Your task to perform on an android device: make emails show in primary in the gmail app Image 0: 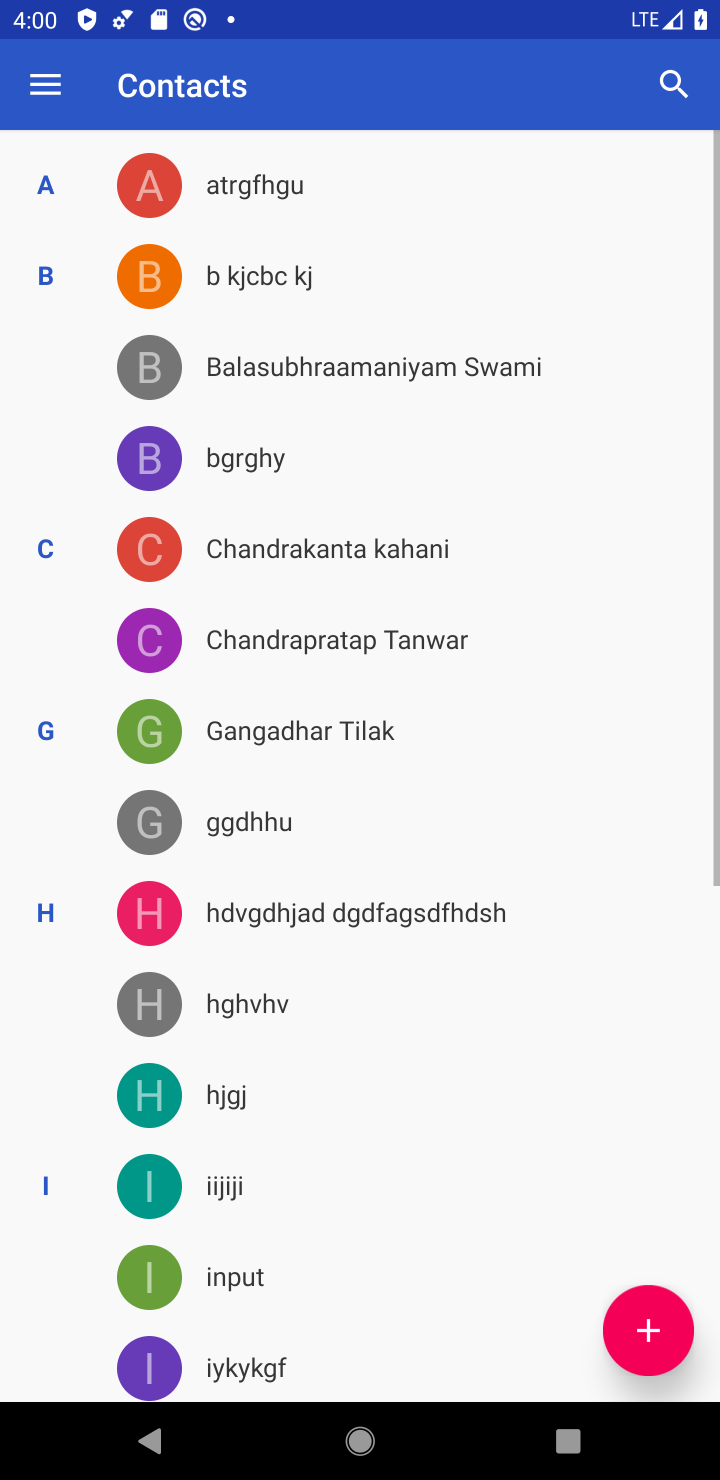
Step 0: press back button
Your task to perform on an android device: make emails show in primary in the gmail app Image 1: 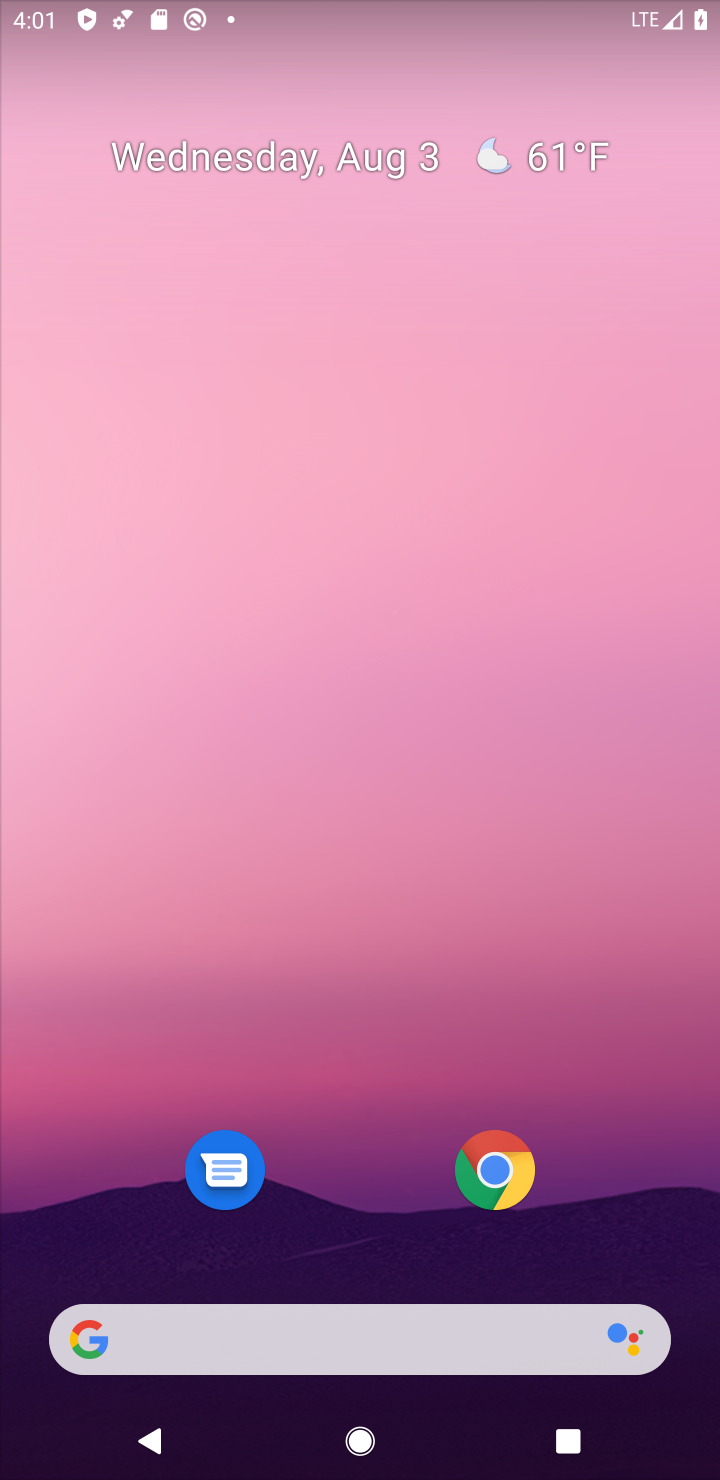
Step 1: drag from (306, 937) to (169, 20)
Your task to perform on an android device: make emails show in primary in the gmail app Image 2: 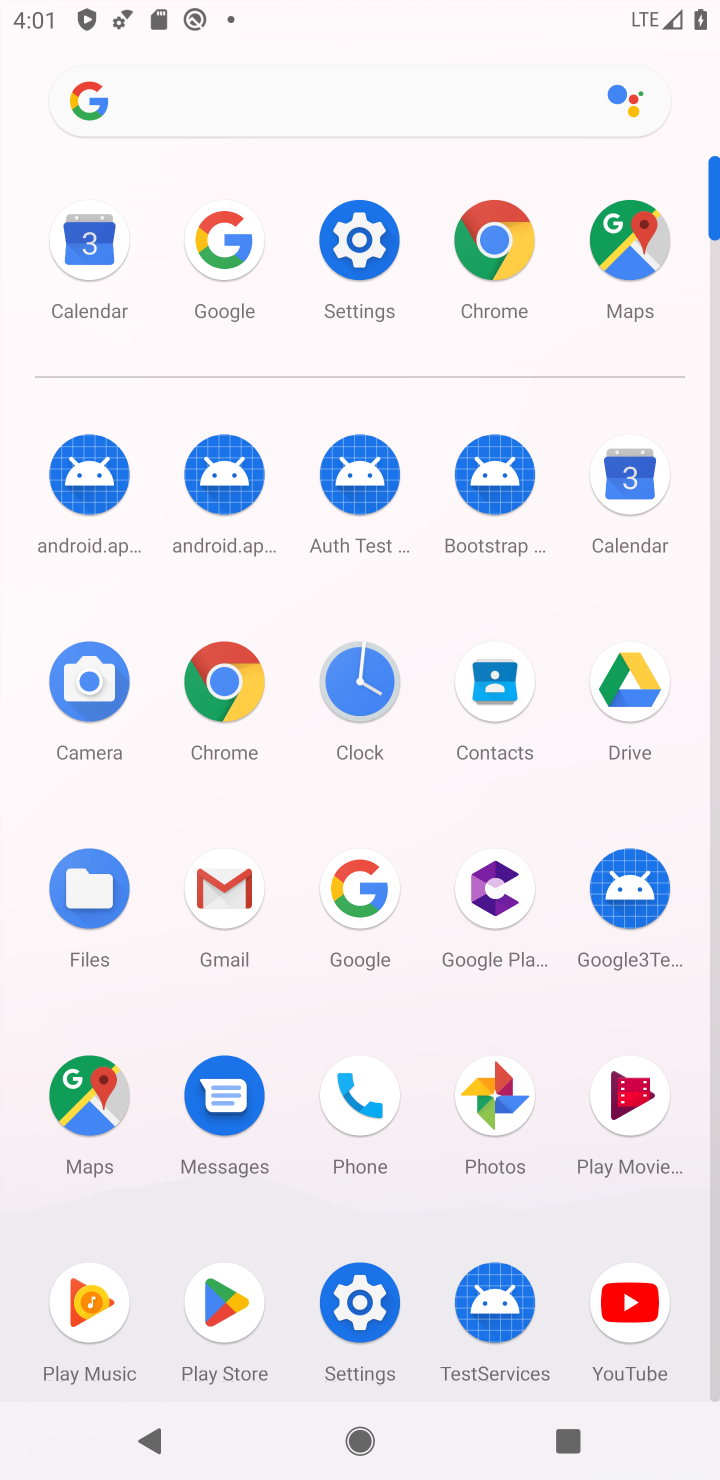
Step 2: click (619, 265)
Your task to perform on an android device: make emails show in primary in the gmail app Image 3: 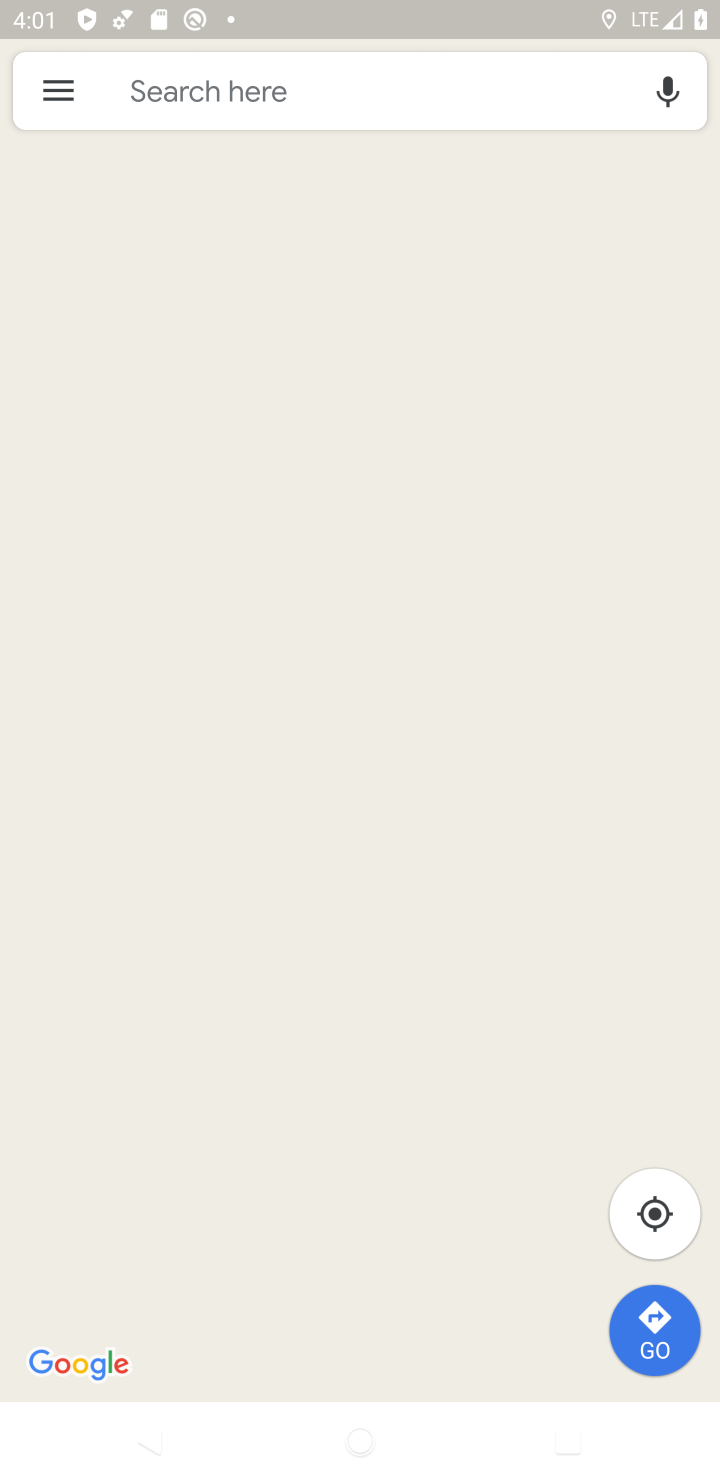
Step 3: press back button
Your task to perform on an android device: make emails show in primary in the gmail app Image 4: 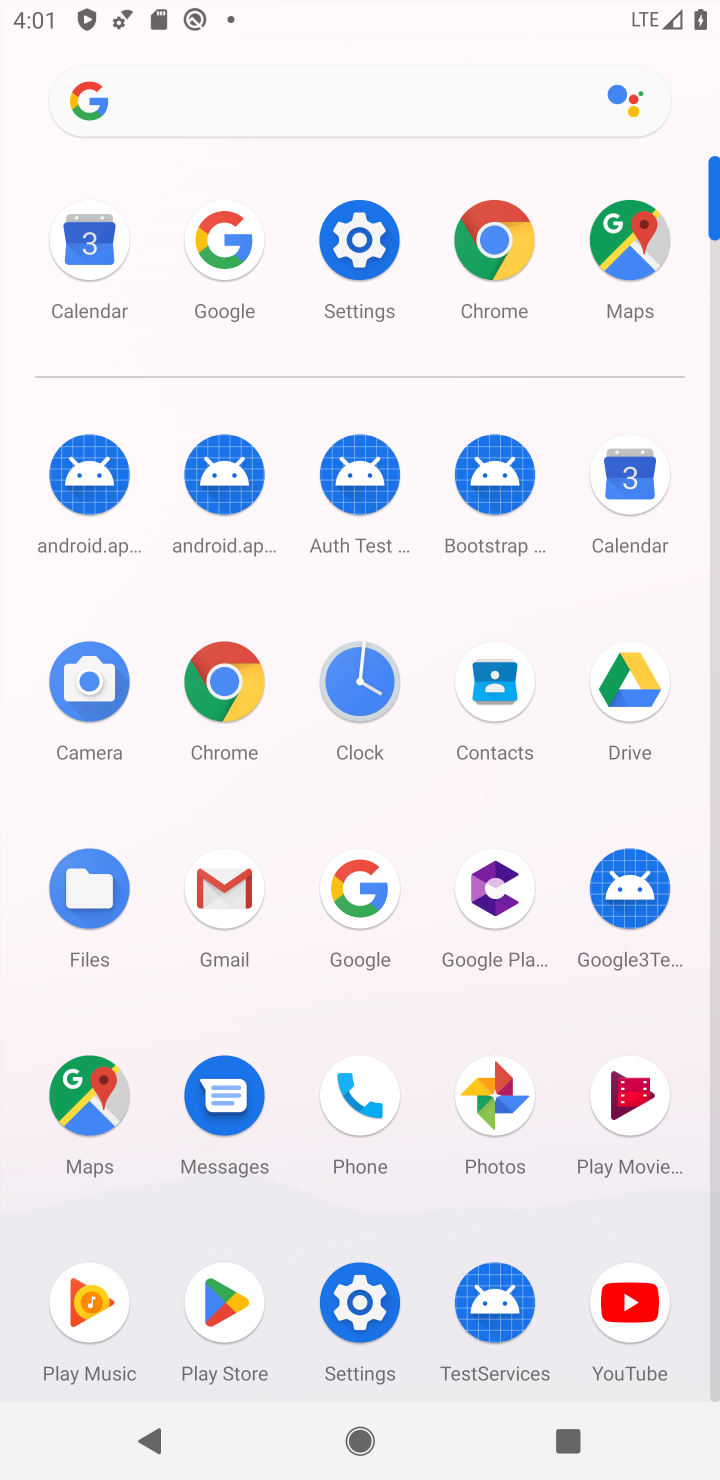
Step 4: click (220, 883)
Your task to perform on an android device: make emails show in primary in the gmail app Image 5: 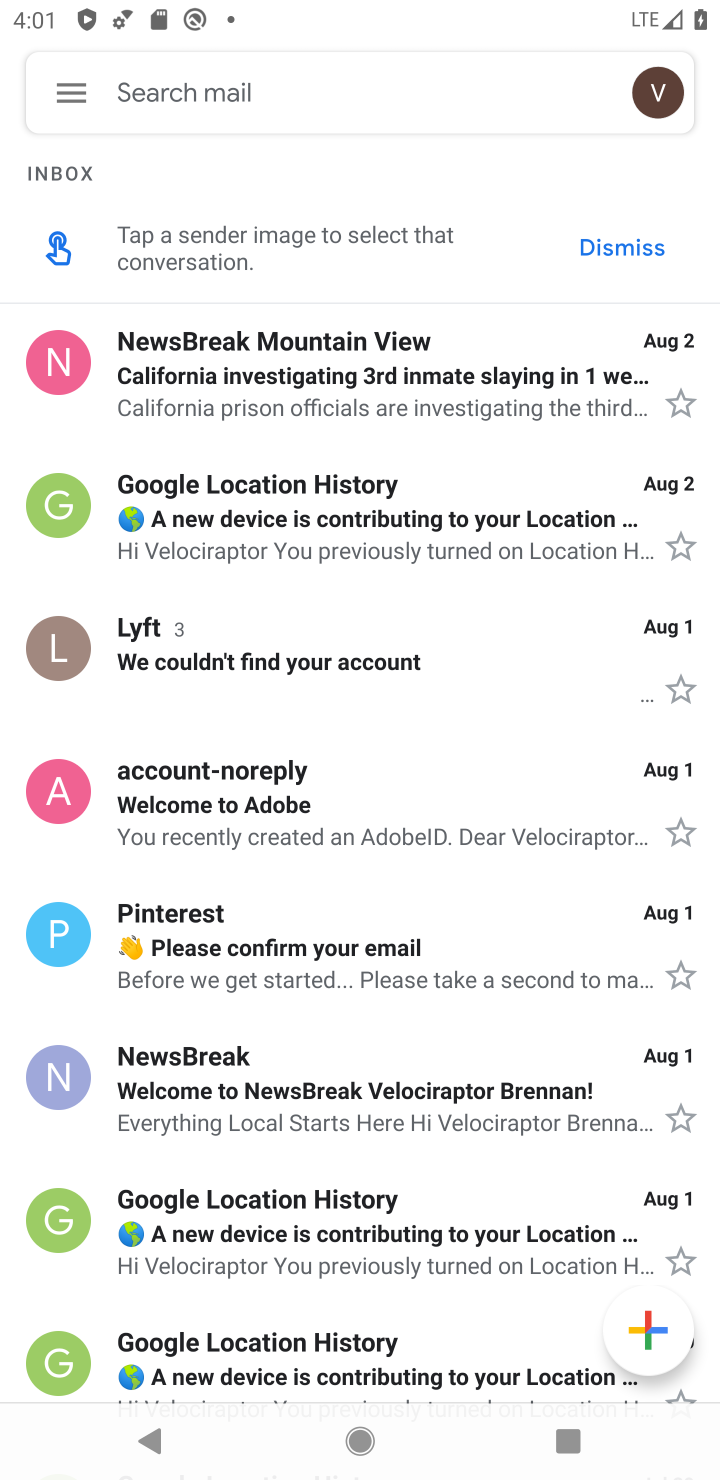
Step 5: click (79, 105)
Your task to perform on an android device: make emails show in primary in the gmail app Image 6: 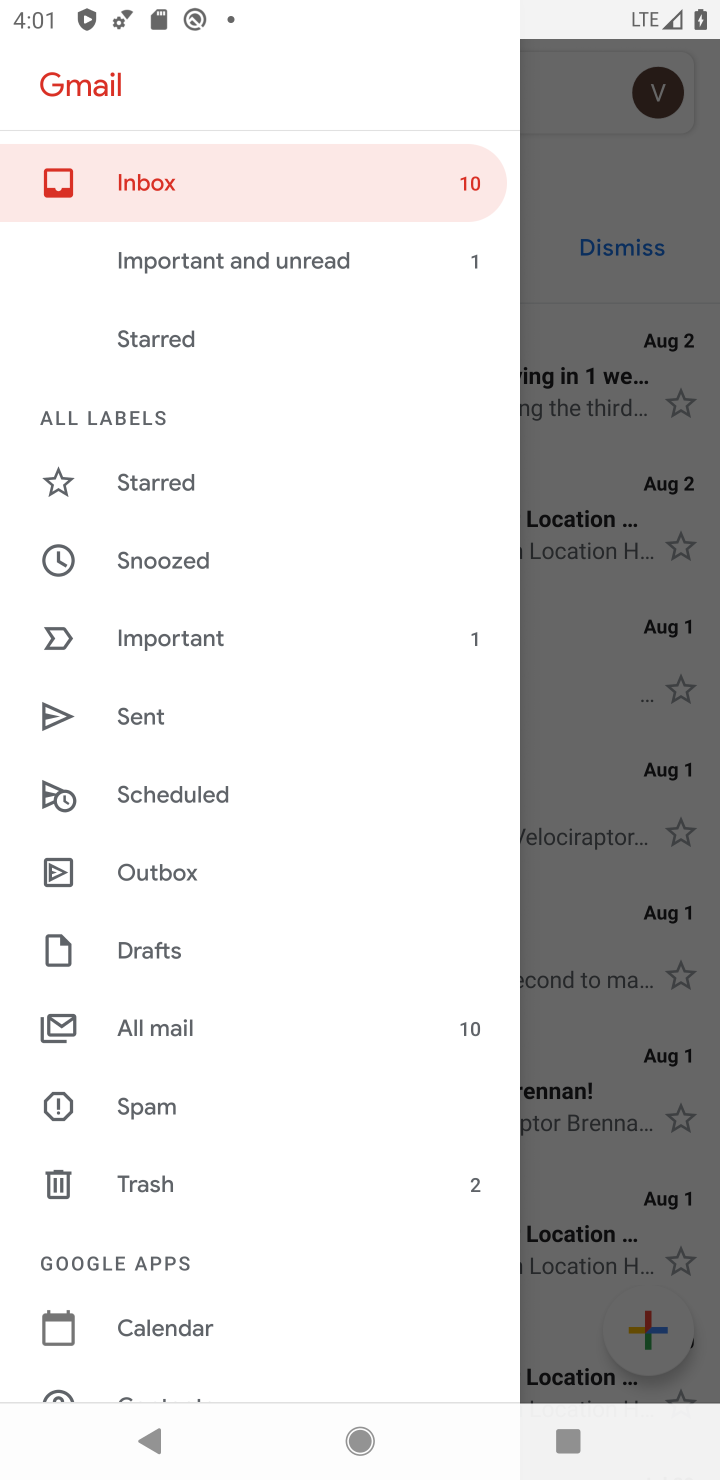
Step 6: drag from (178, 1220) to (204, 360)
Your task to perform on an android device: make emails show in primary in the gmail app Image 7: 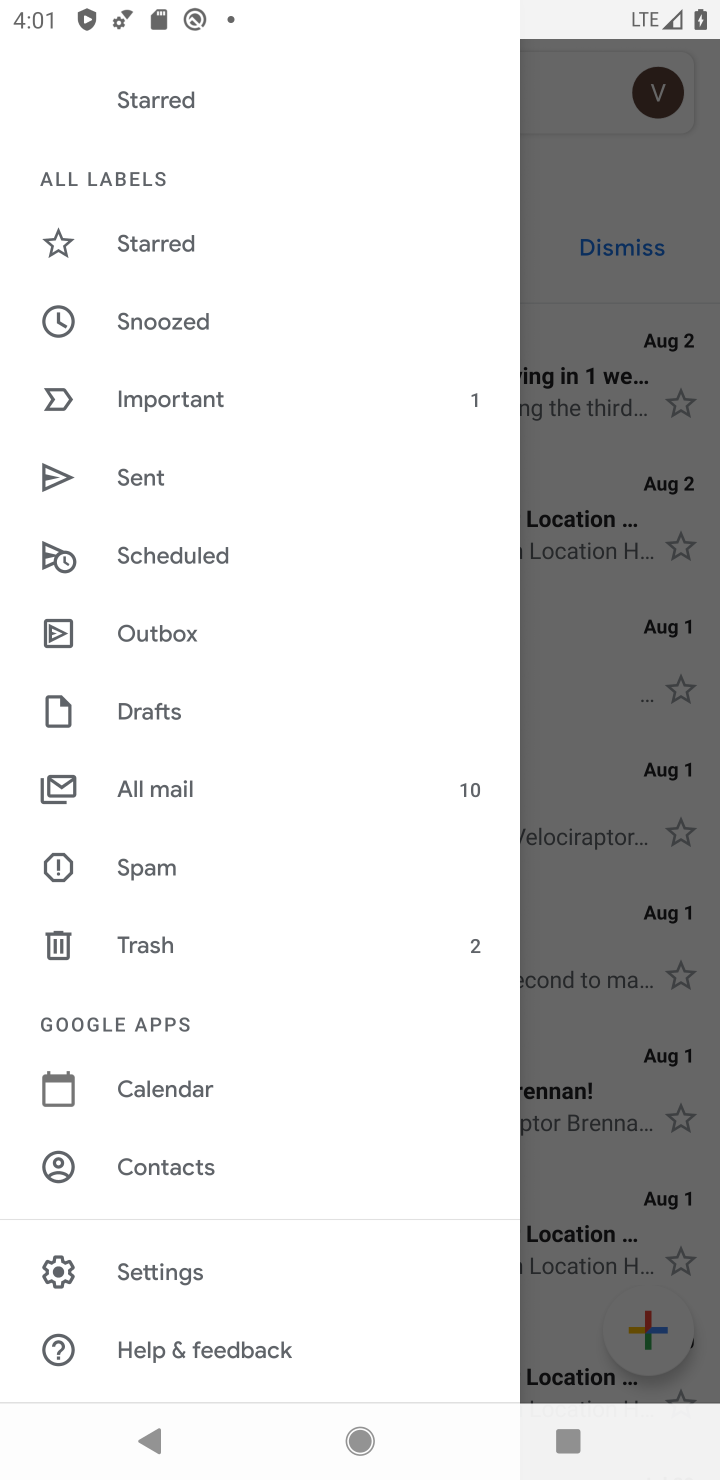
Step 7: click (149, 1294)
Your task to perform on an android device: make emails show in primary in the gmail app Image 8: 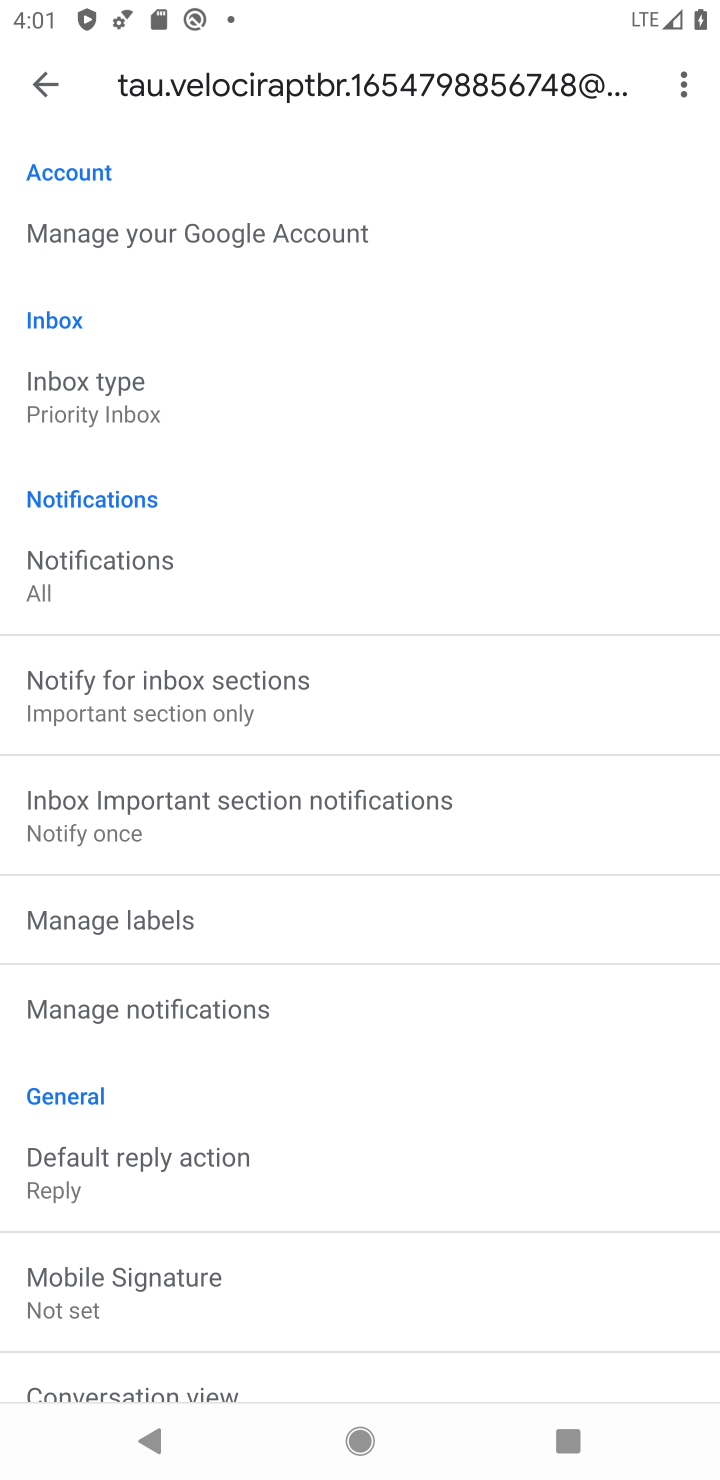
Step 8: task complete